Your task to perform on an android device: Search for lg ultragear on ebay.com, select the first entry, and add it to the cart. Image 0: 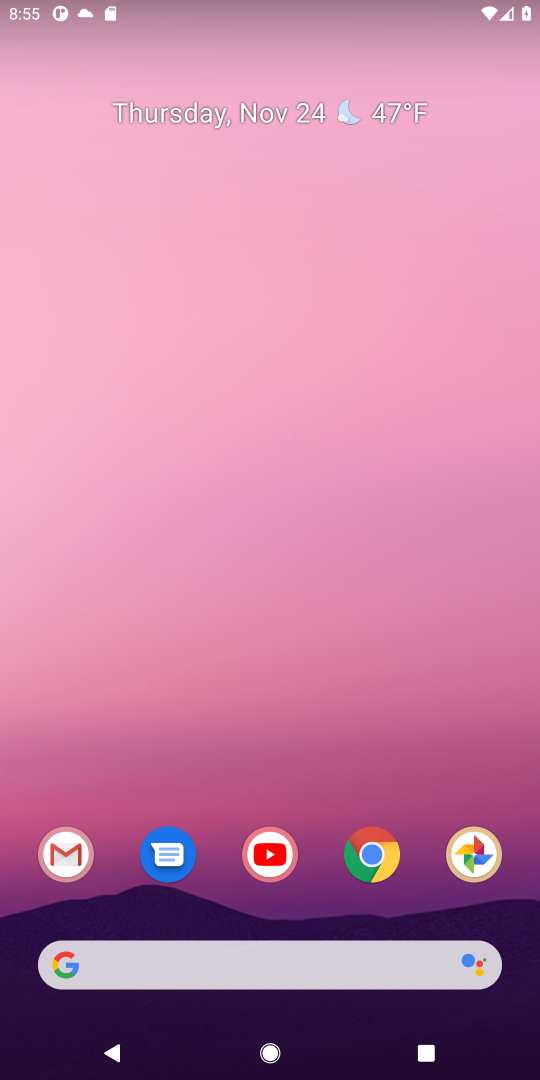
Step 0: click (376, 863)
Your task to perform on an android device: Search for lg ultragear on ebay.com, select the first entry, and add it to the cart. Image 1: 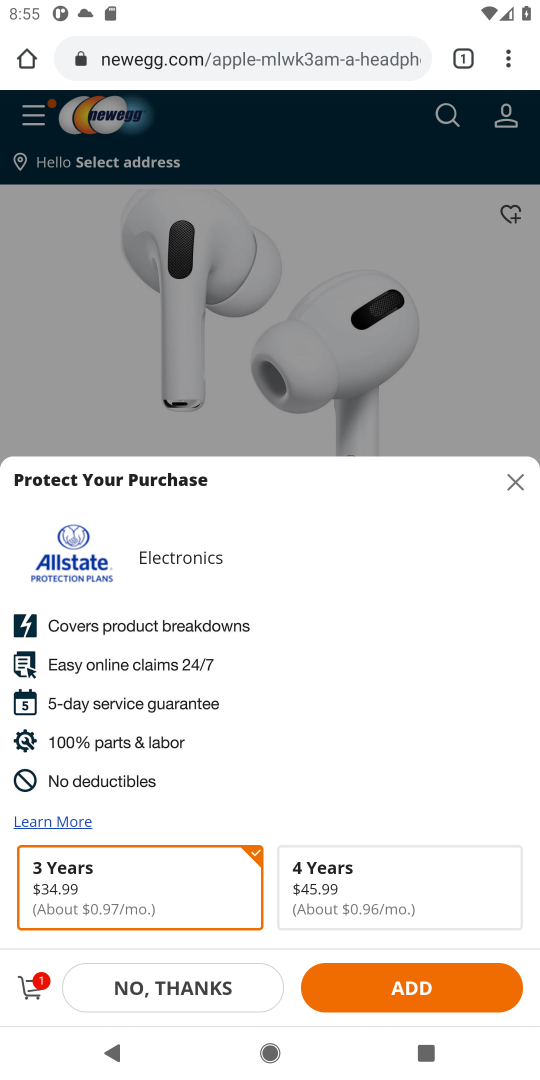
Step 1: click (233, 66)
Your task to perform on an android device: Search for lg ultragear on ebay.com, select the first entry, and add it to the cart. Image 2: 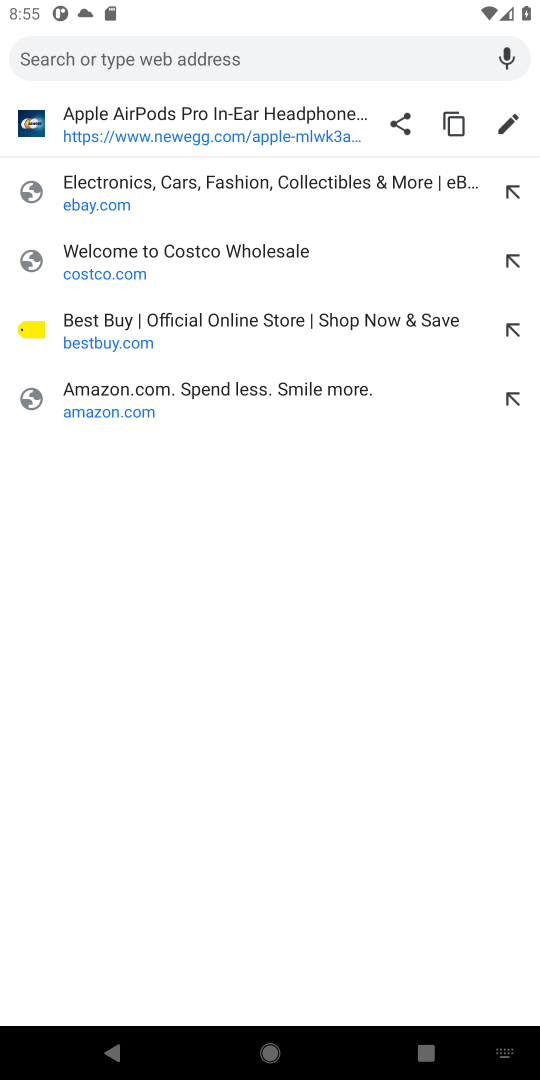
Step 2: click (93, 207)
Your task to perform on an android device: Search for lg ultragear on ebay.com, select the first entry, and add it to the cart. Image 3: 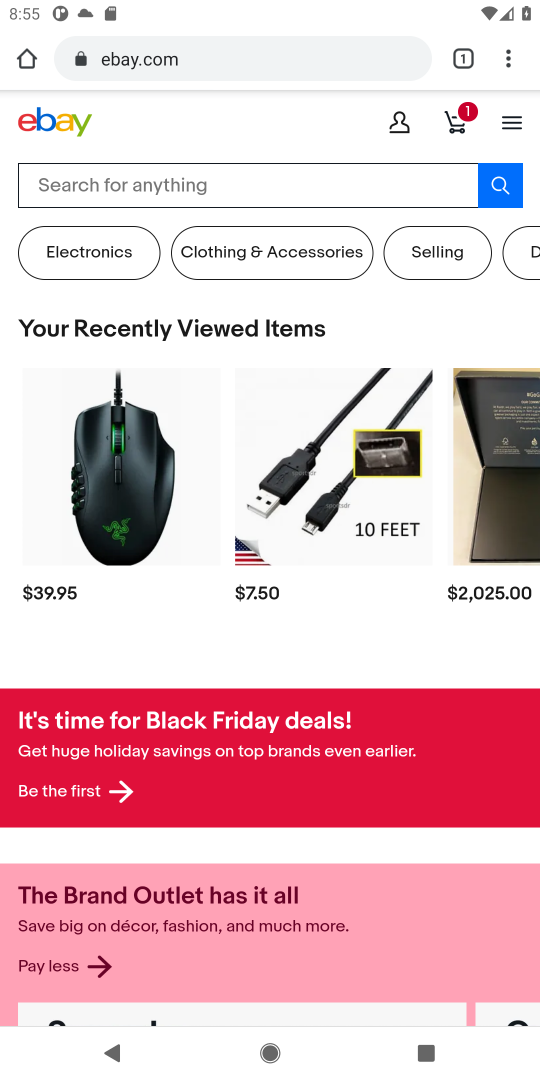
Step 3: click (203, 186)
Your task to perform on an android device: Search for lg ultragear on ebay.com, select the first entry, and add it to the cart. Image 4: 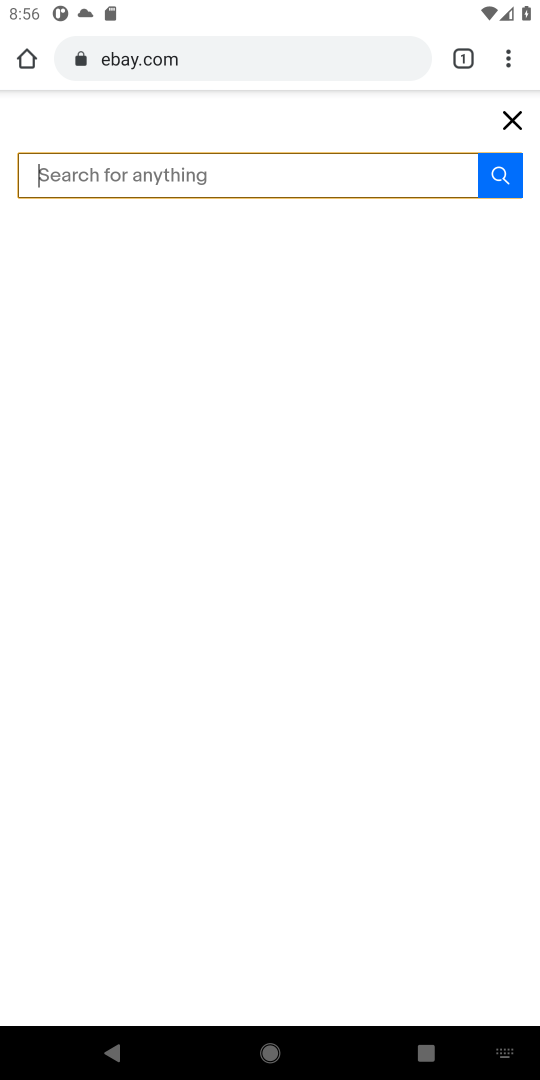
Step 4: type "lg ultragear"
Your task to perform on an android device: Search for lg ultragear on ebay.com, select the first entry, and add it to the cart. Image 5: 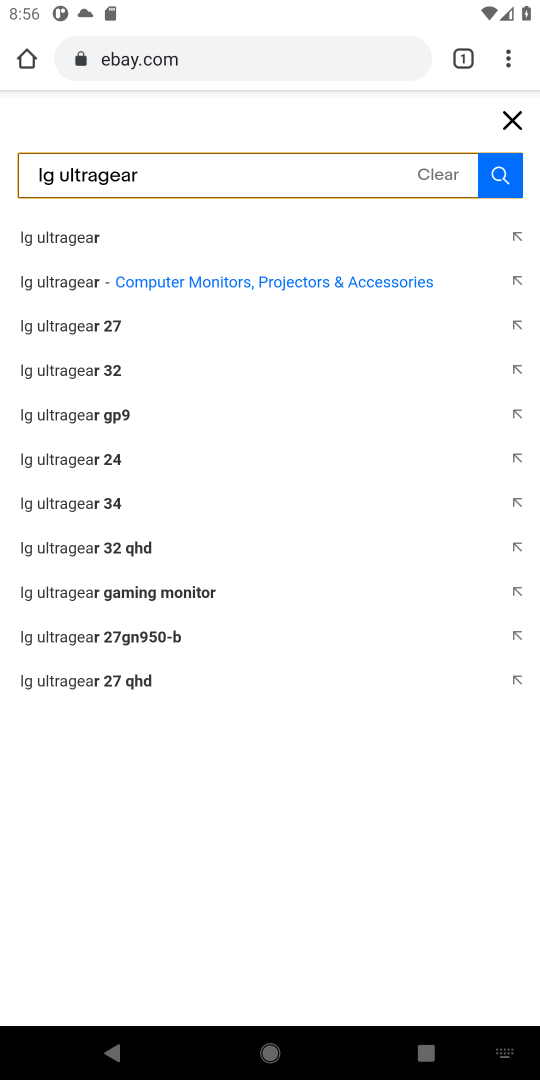
Step 5: click (59, 235)
Your task to perform on an android device: Search for lg ultragear on ebay.com, select the first entry, and add it to the cart. Image 6: 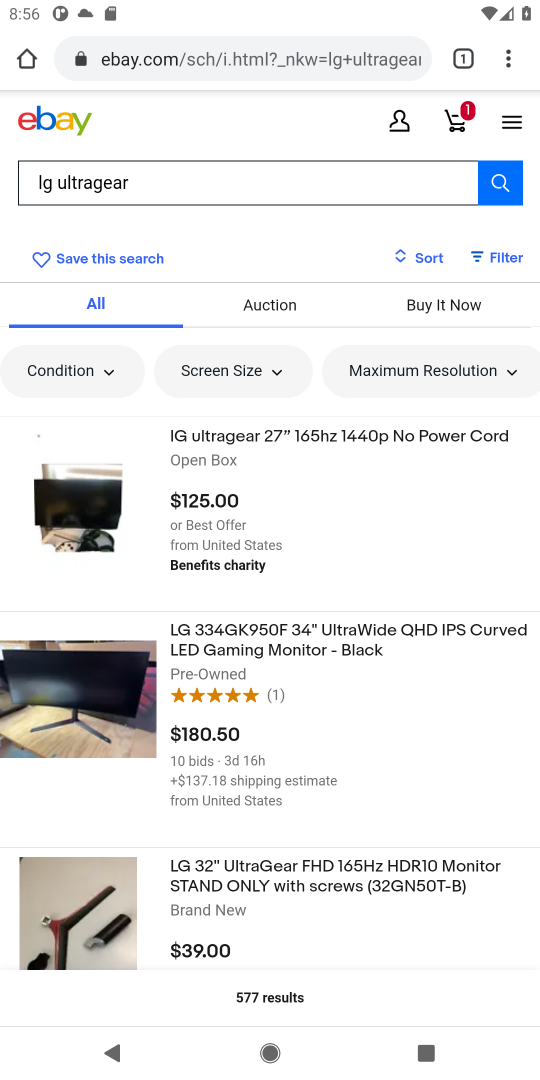
Step 6: click (92, 523)
Your task to perform on an android device: Search for lg ultragear on ebay.com, select the first entry, and add it to the cart. Image 7: 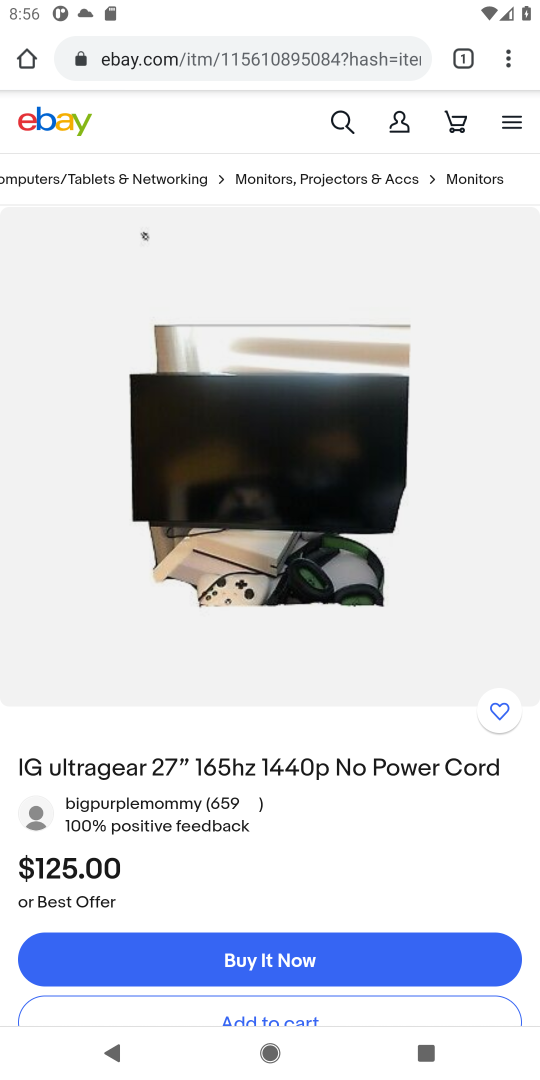
Step 7: drag from (230, 716) to (243, 408)
Your task to perform on an android device: Search for lg ultragear on ebay.com, select the first entry, and add it to the cart. Image 8: 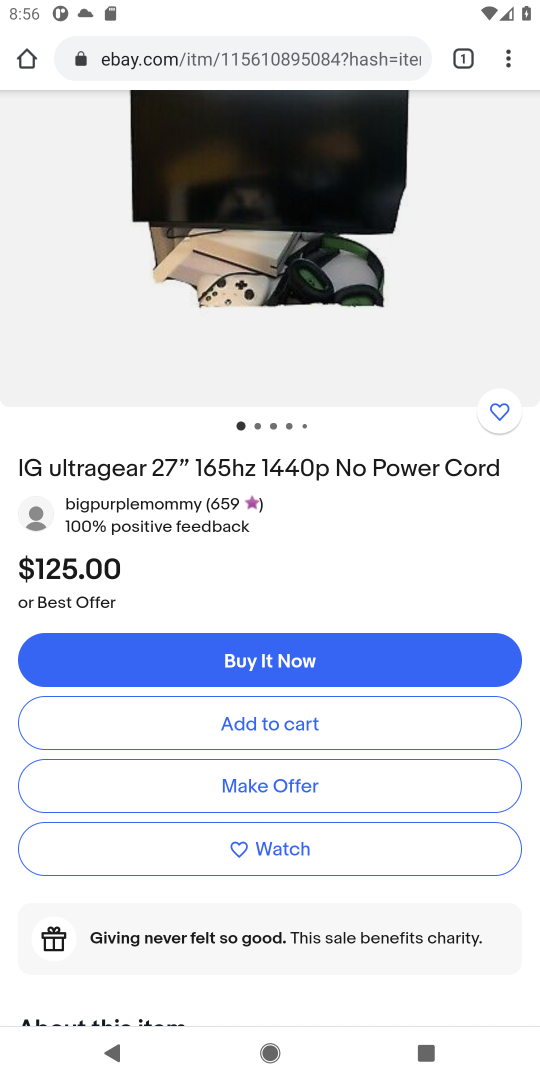
Step 8: click (239, 723)
Your task to perform on an android device: Search for lg ultragear on ebay.com, select the first entry, and add it to the cart. Image 9: 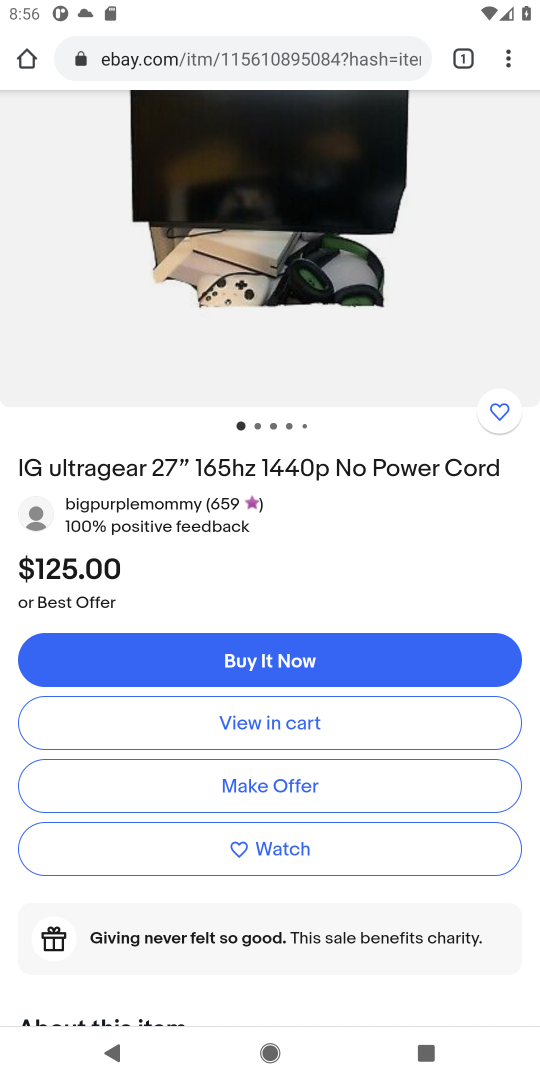
Step 9: task complete